Your task to perform on an android device: snooze an email in the gmail app Image 0: 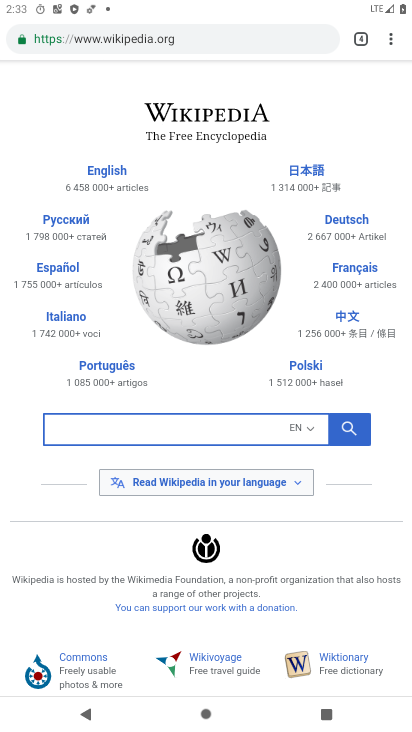
Step 0: press home button
Your task to perform on an android device: snooze an email in the gmail app Image 1: 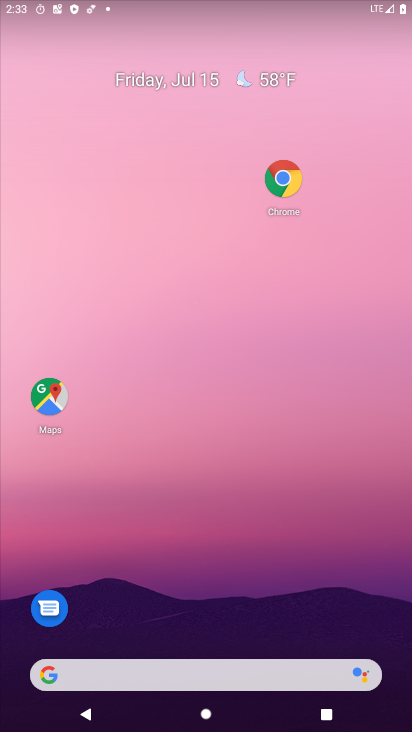
Step 1: drag from (232, 567) to (255, 63)
Your task to perform on an android device: snooze an email in the gmail app Image 2: 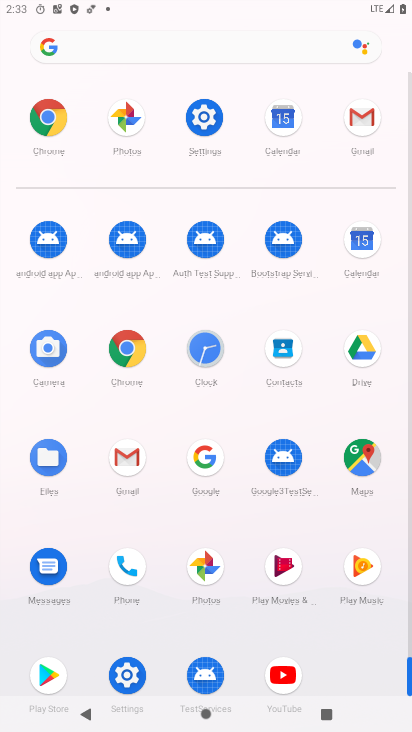
Step 2: click (121, 451)
Your task to perform on an android device: snooze an email in the gmail app Image 3: 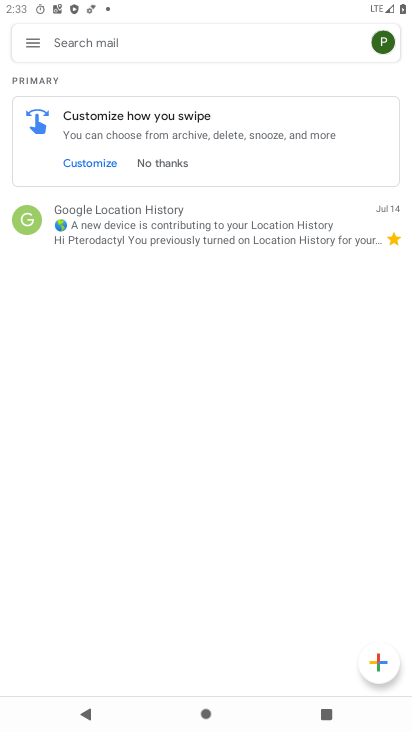
Step 3: click (31, 38)
Your task to perform on an android device: snooze an email in the gmail app Image 4: 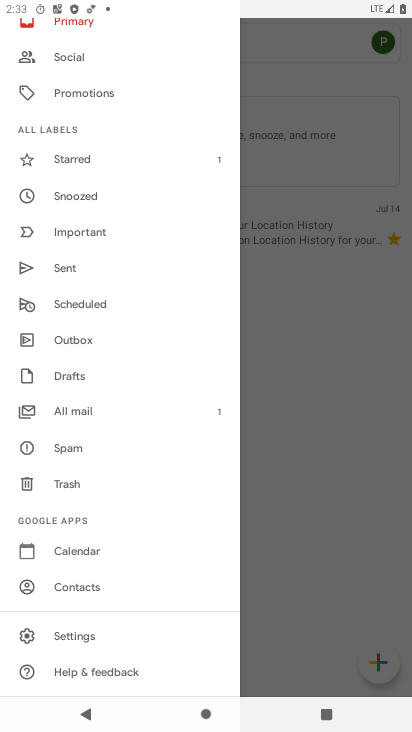
Step 4: click (63, 202)
Your task to perform on an android device: snooze an email in the gmail app Image 5: 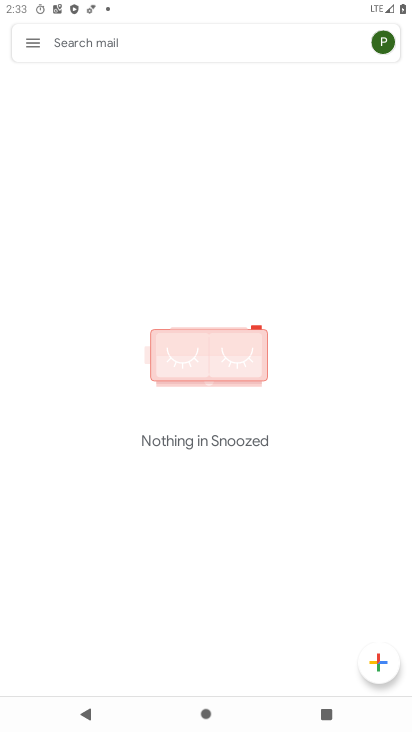
Step 5: task complete